Your task to perform on an android device: add a contact Image 0: 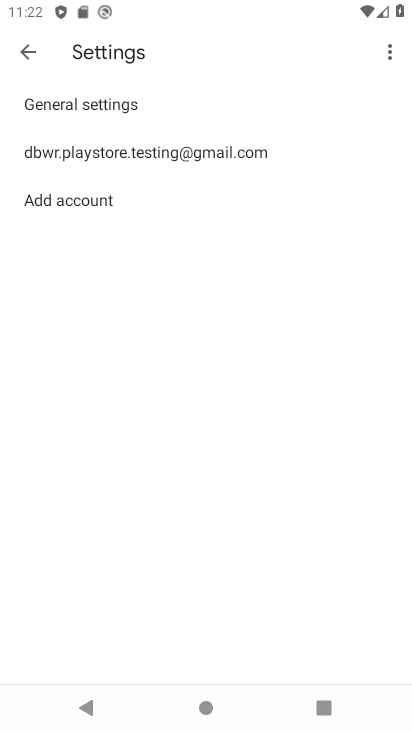
Step 0: press home button
Your task to perform on an android device: add a contact Image 1: 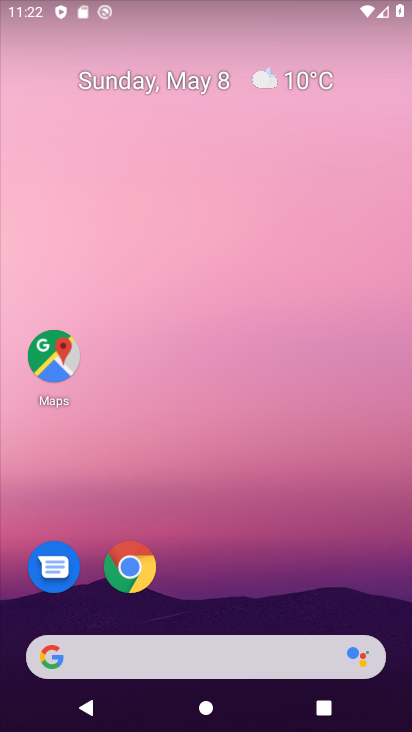
Step 1: drag from (212, 659) to (288, 50)
Your task to perform on an android device: add a contact Image 2: 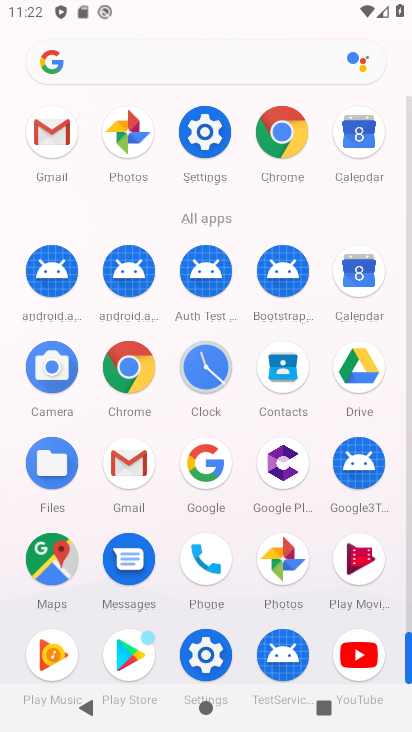
Step 2: click (293, 388)
Your task to perform on an android device: add a contact Image 3: 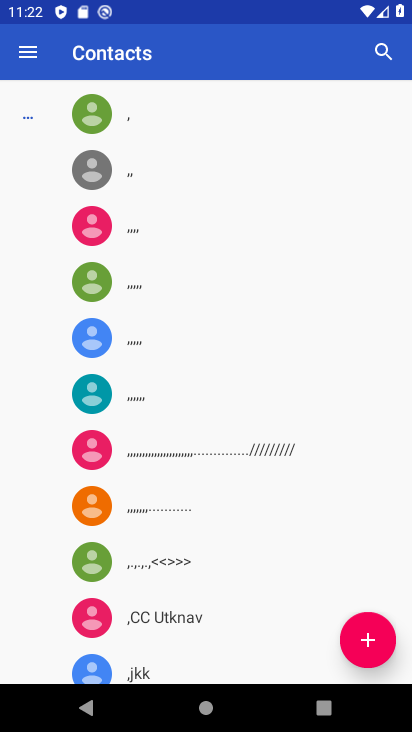
Step 3: click (362, 651)
Your task to perform on an android device: add a contact Image 4: 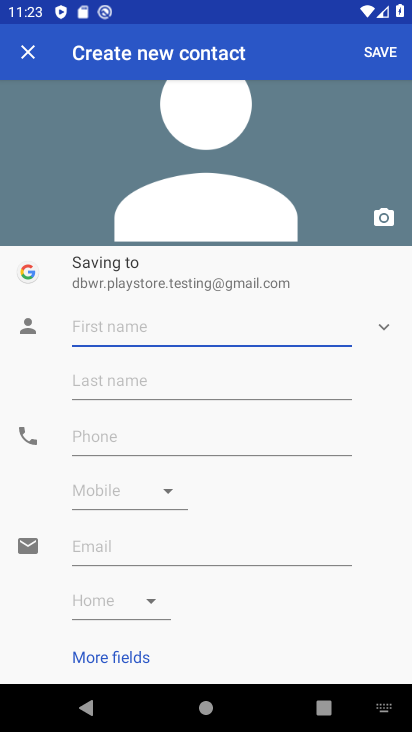
Step 4: type "xhxfjfk"
Your task to perform on an android device: add a contact Image 5: 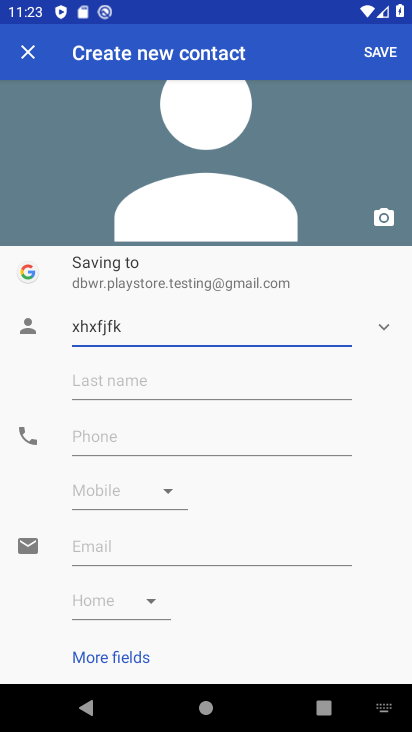
Step 5: click (316, 429)
Your task to perform on an android device: add a contact Image 6: 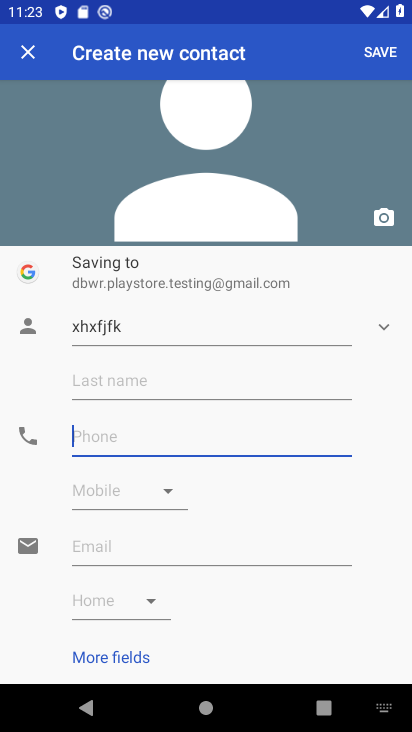
Step 6: type "798776795779"
Your task to perform on an android device: add a contact Image 7: 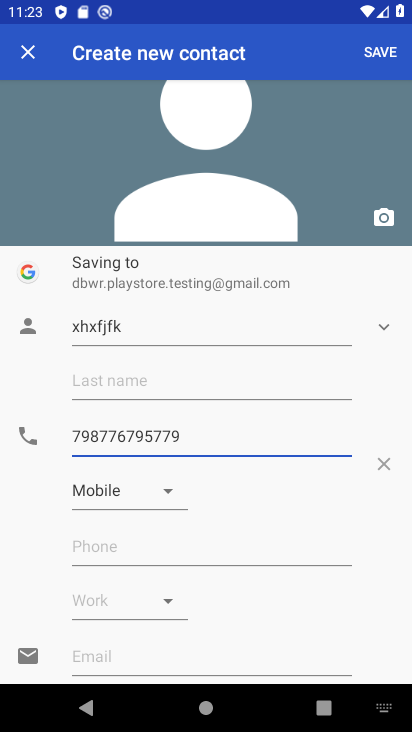
Step 7: click (387, 51)
Your task to perform on an android device: add a contact Image 8: 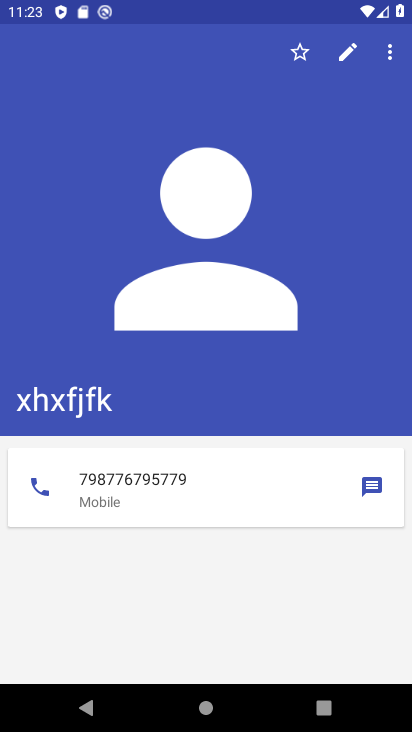
Step 8: task complete